Your task to perform on an android device: create a new album in the google photos Image 0: 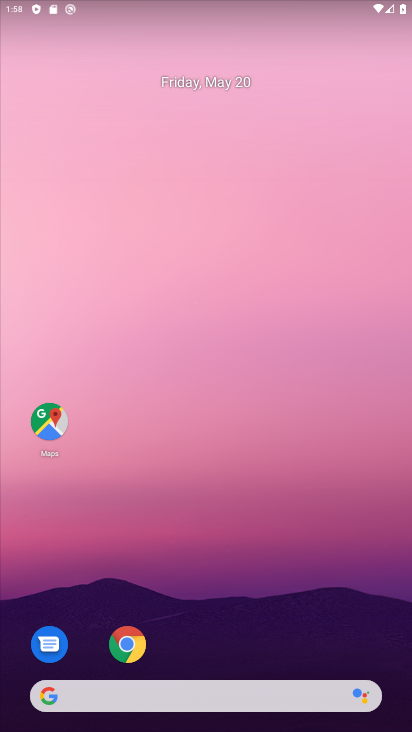
Step 0: drag from (187, 674) to (237, 85)
Your task to perform on an android device: create a new album in the google photos Image 1: 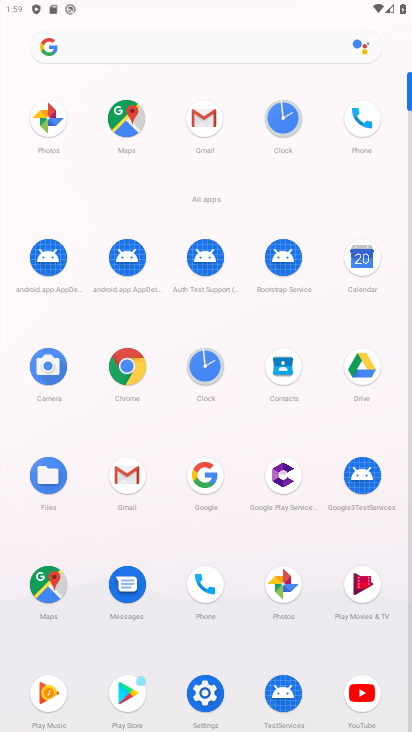
Step 1: click (41, 124)
Your task to perform on an android device: create a new album in the google photos Image 2: 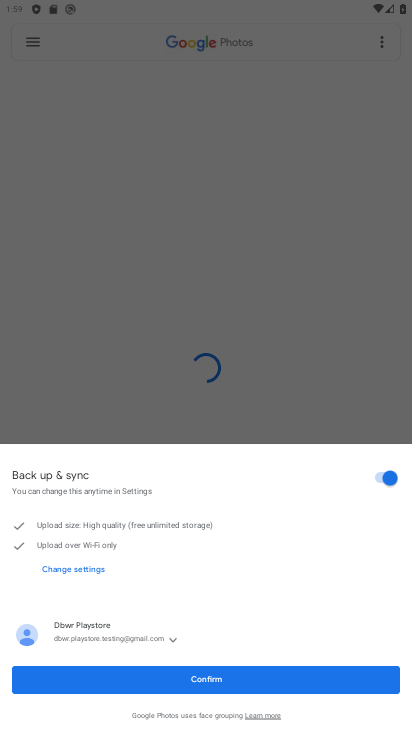
Step 2: click (380, 45)
Your task to perform on an android device: create a new album in the google photos Image 3: 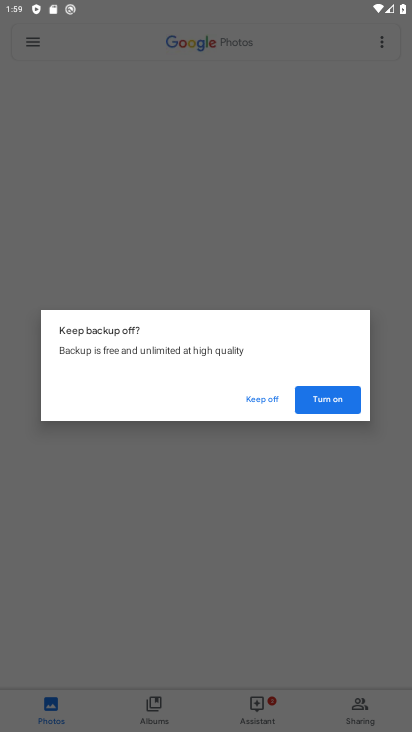
Step 3: click (255, 397)
Your task to perform on an android device: create a new album in the google photos Image 4: 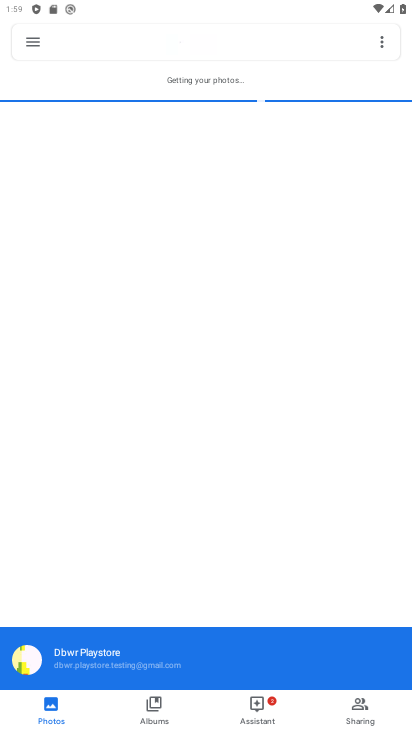
Step 4: click (383, 45)
Your task to perform on an android device: create a new album in the google photos Image 5: 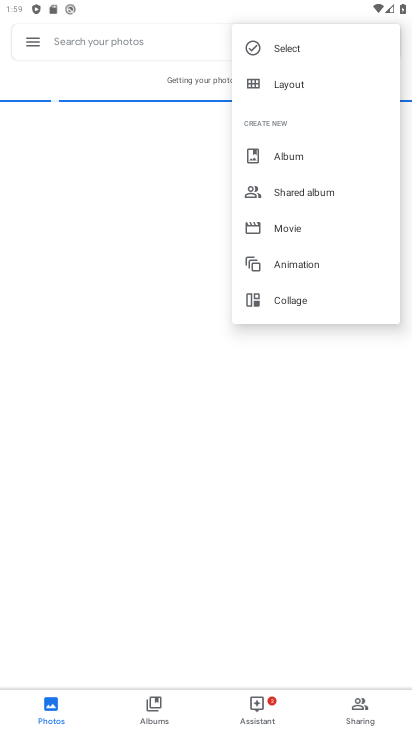
Step 5: click (294, 156)
Your task to perform on an android device: create a new album in the google photos Image 6: 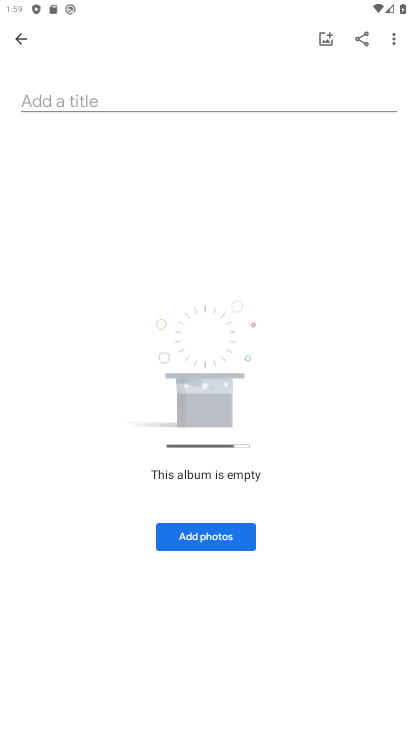
Step 6: click (95, 92)
Your task to perform on an android device: create a new album in the google photos Image 7: 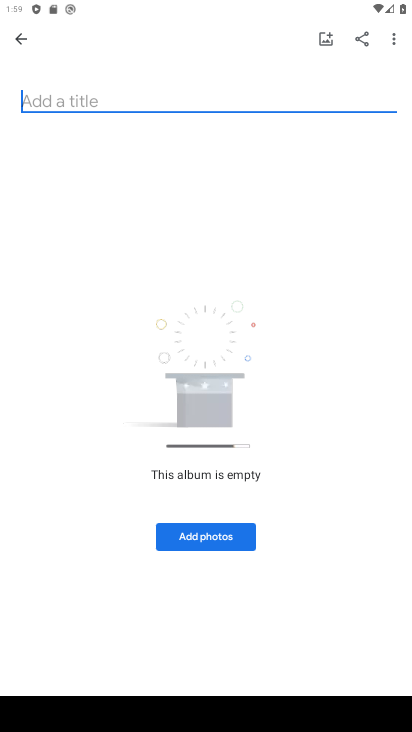
Step 7: type "rama"
Your task to perform on an android device: create a new album in the google photos Image 8: 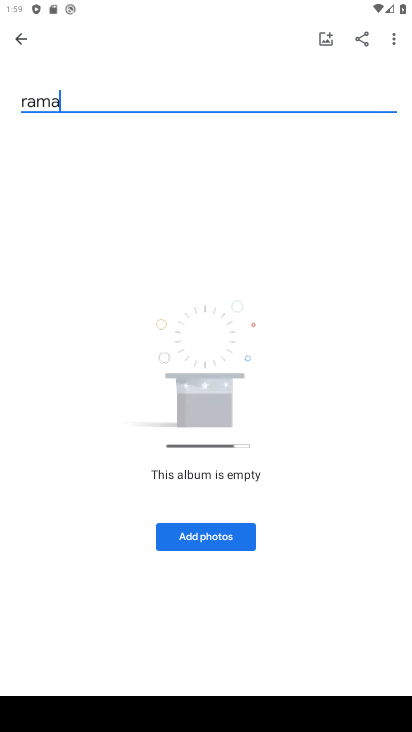
Step 8: click (198, 534)
Your task to perform on an android device: create a new album in the google photos Image 9: 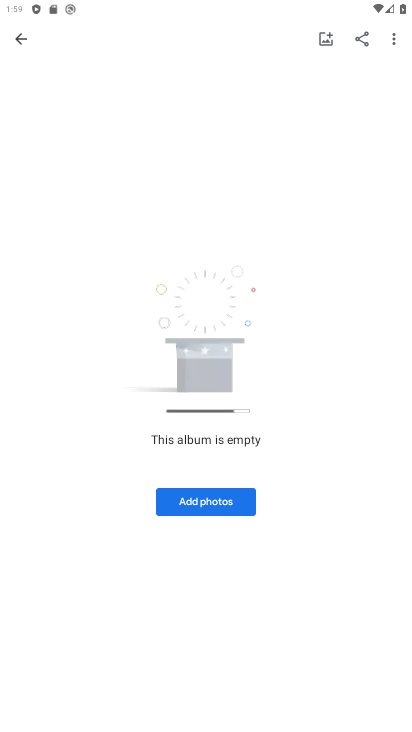
Step 9: click (200, 507)
Your task to perform on an android device: create a new album in the google photos Image 10: 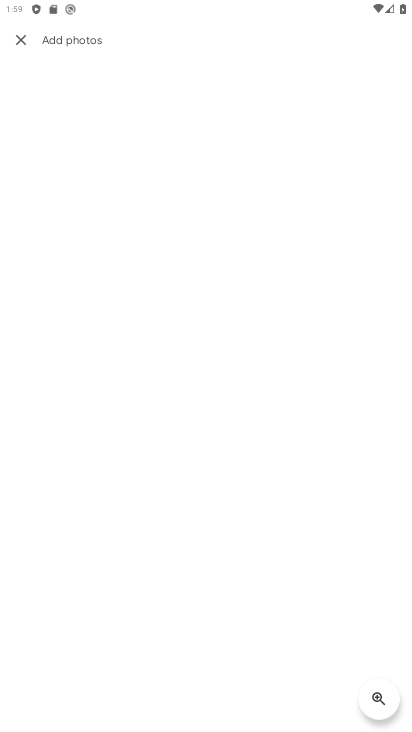
Step 10: click (169, 368)
Your task to perform on an android device: create a new album in the google photos Image 11: 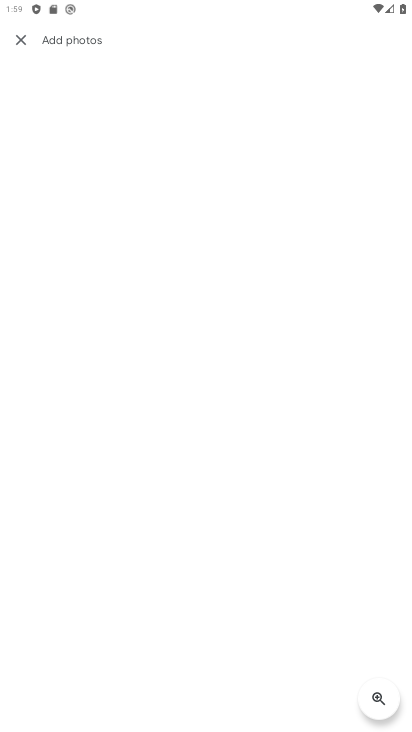
Step 11: click (169, 368)
Your task to perform on an android device: create a new album in the google photos Image 12: 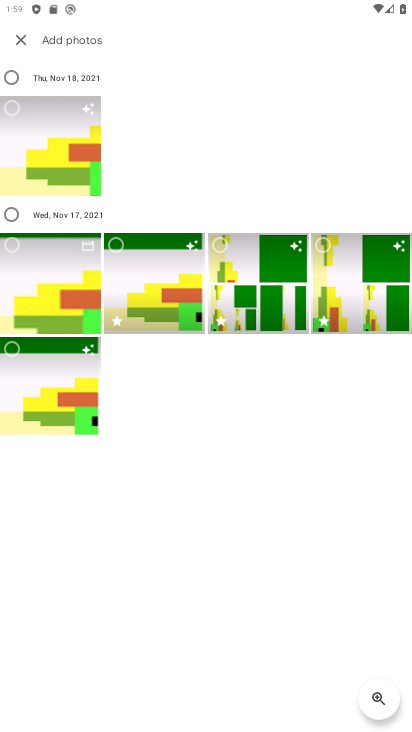
Step 12: task complete